Your task to perform on an android device: Go to settings Image 0: 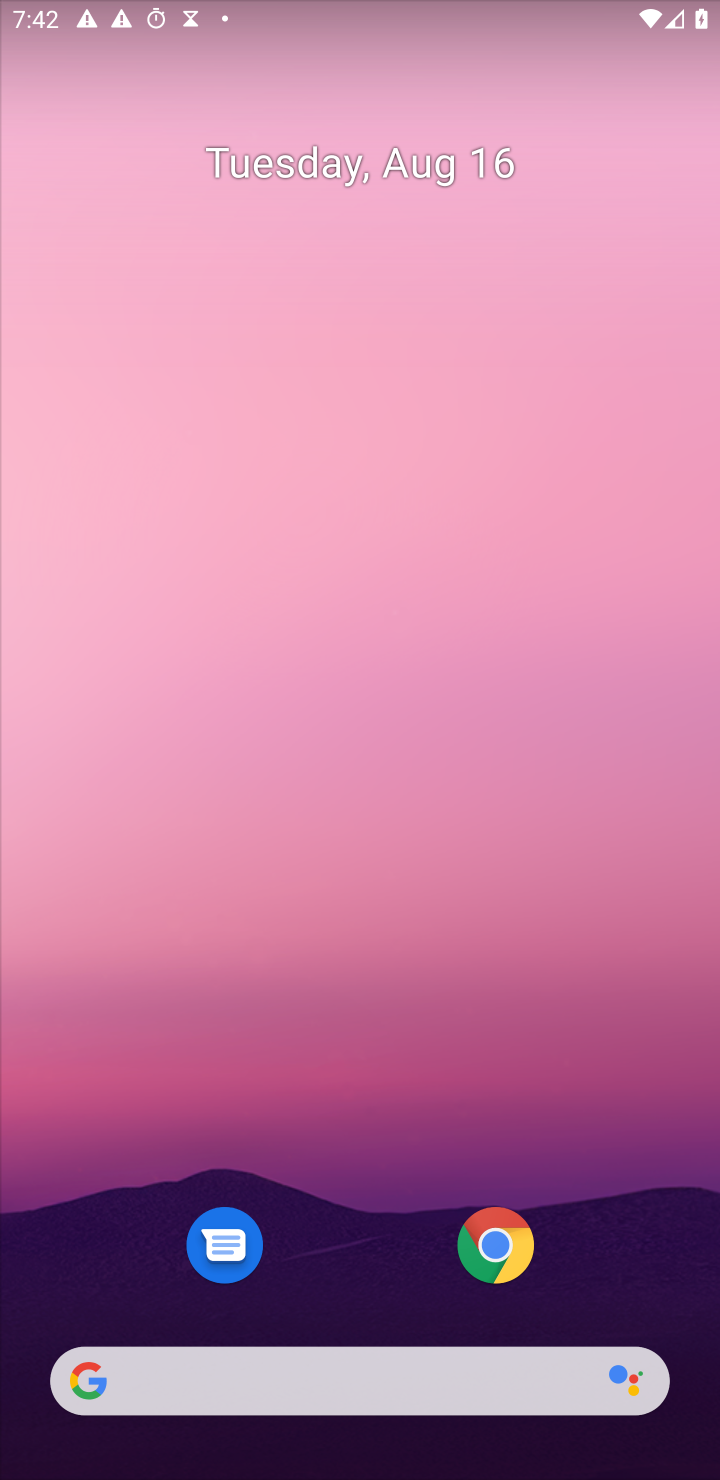
Step 0: press home button
Your task to perform on an android device: Go to settings Image 1: 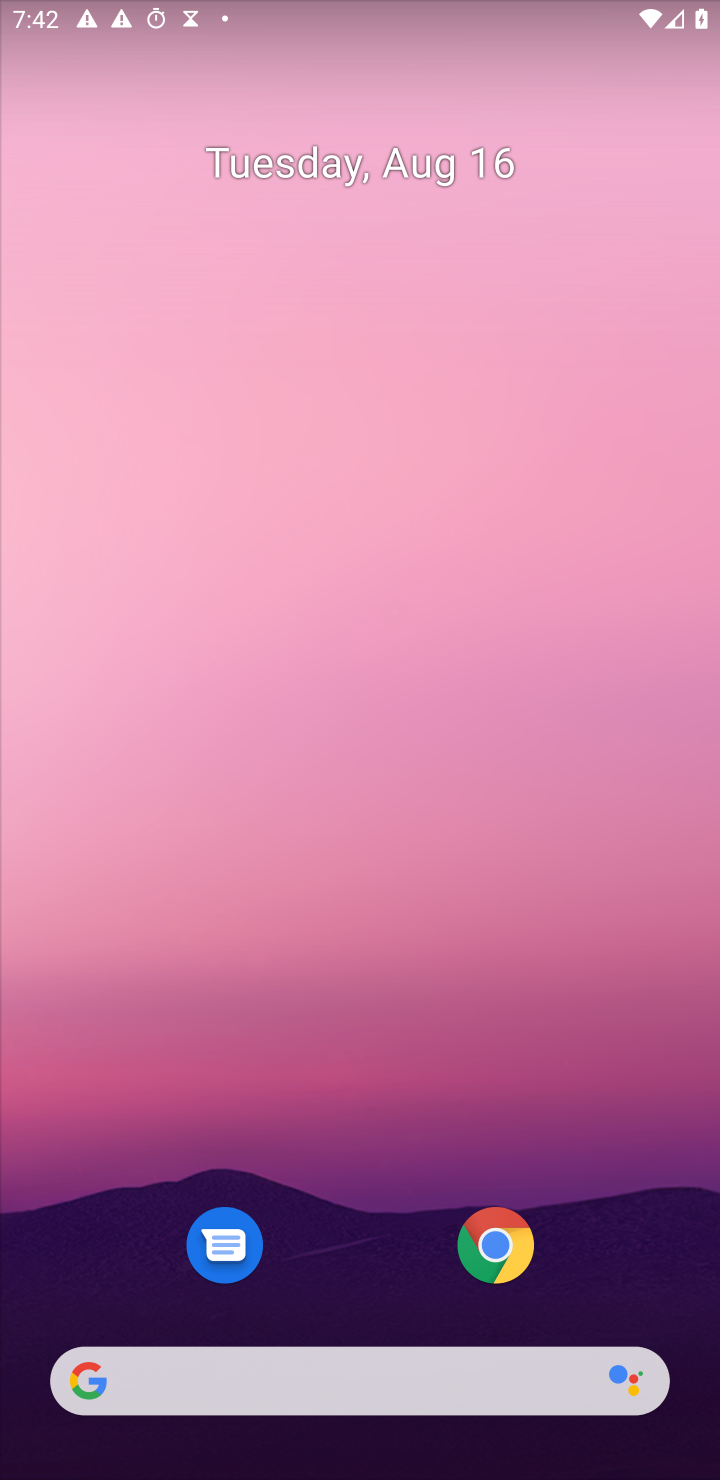
Step 1: drag from (384, 1281) to (425, 208)
Your task to perform on an android device: Go to settings Image 2: 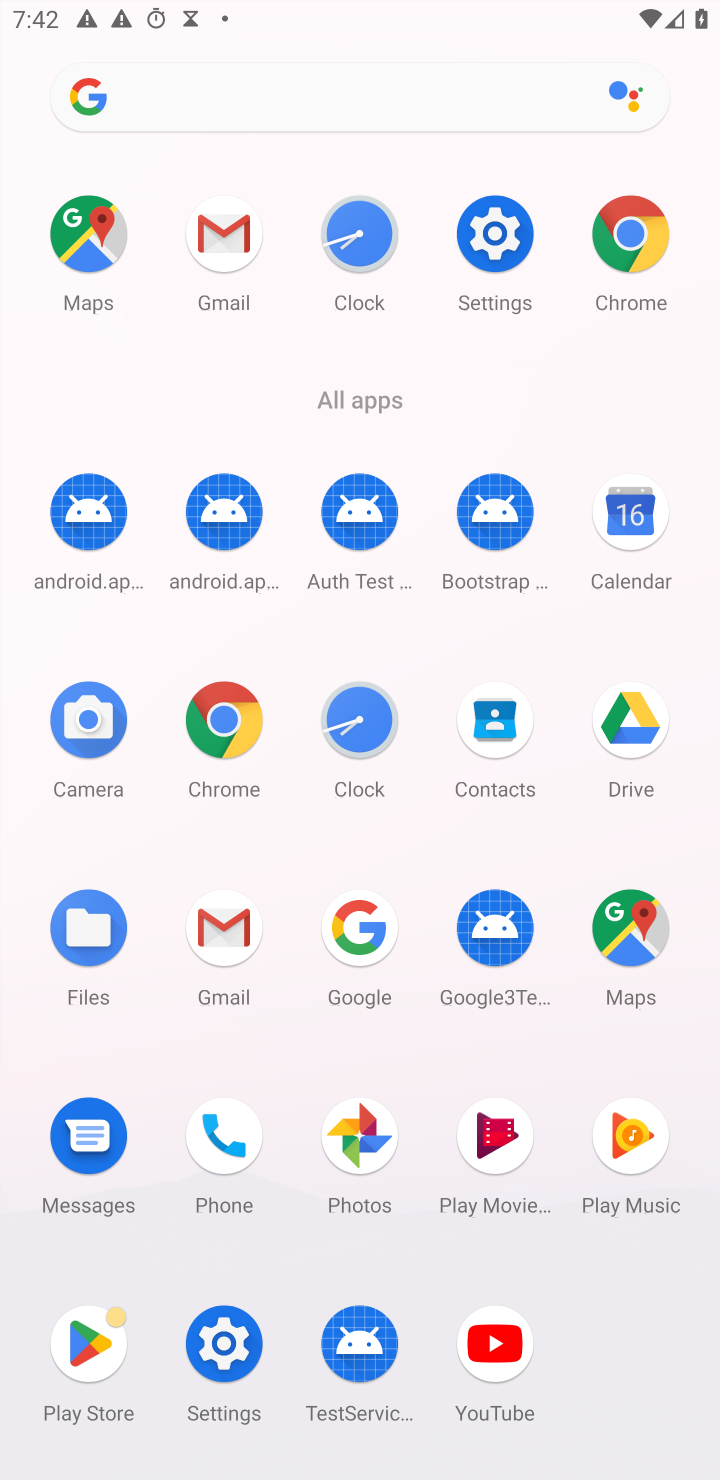
Step 2: click (472, 230)
Your task to perform on an android device: Go to settings Image 3: 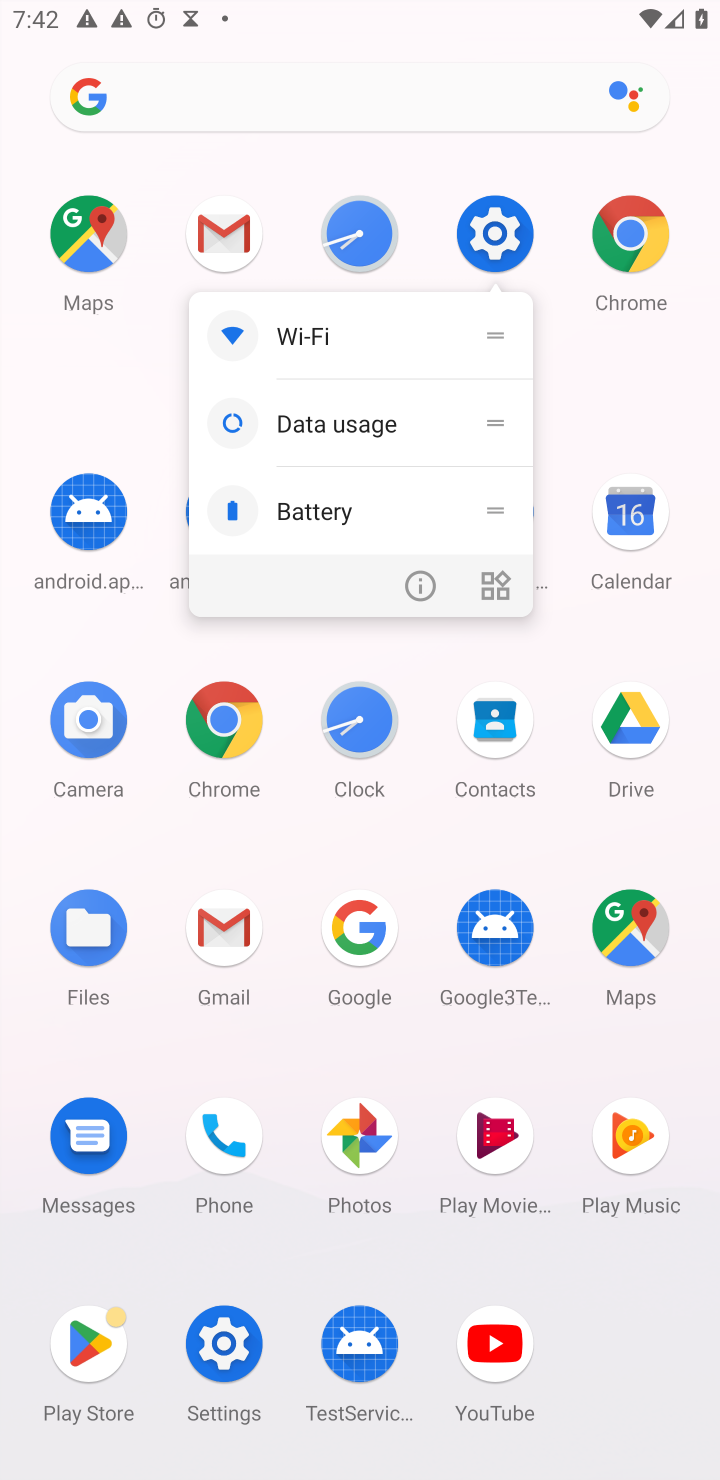
Step 3: click (491, 237)
Your task to perform on an android device: Go to settings Image 4: 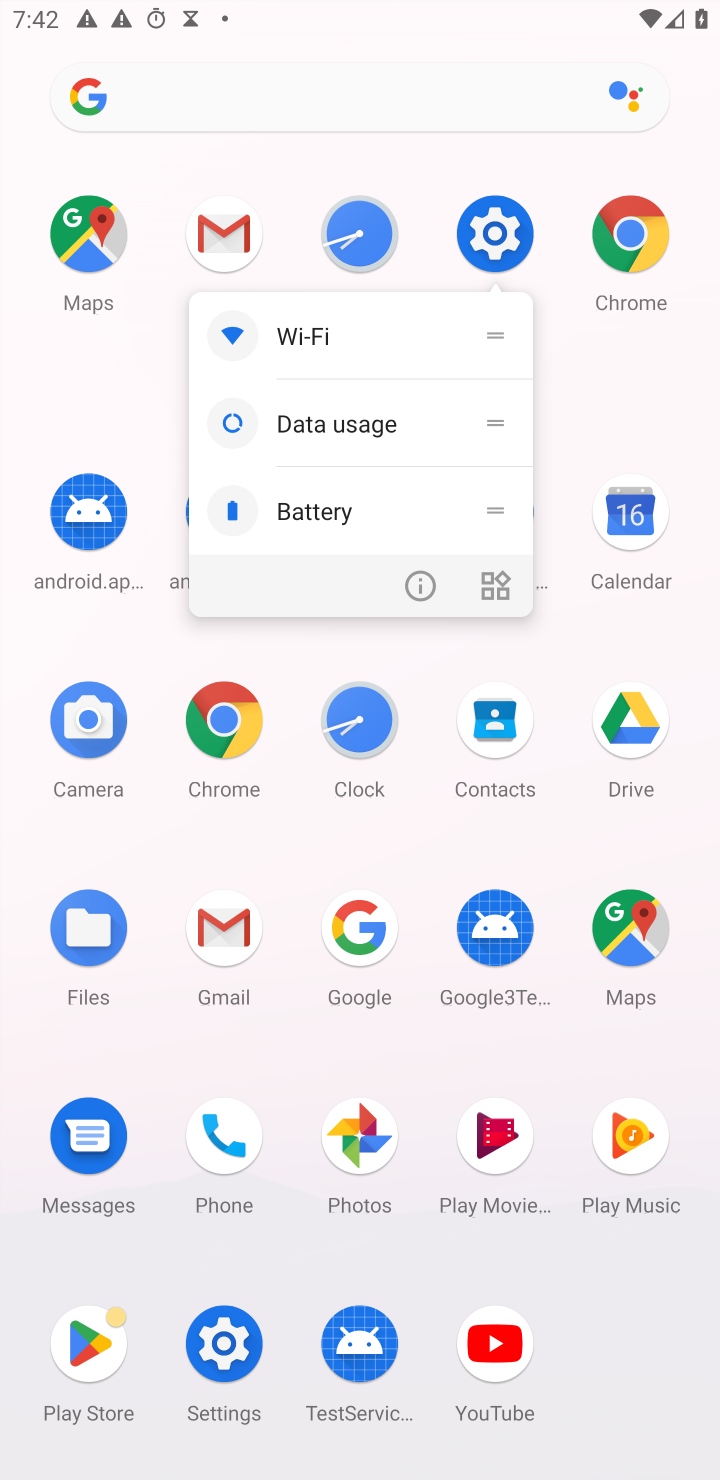
Step 4: click (506, 237)
Your task to perform on an android device: Go to settings Image 5: 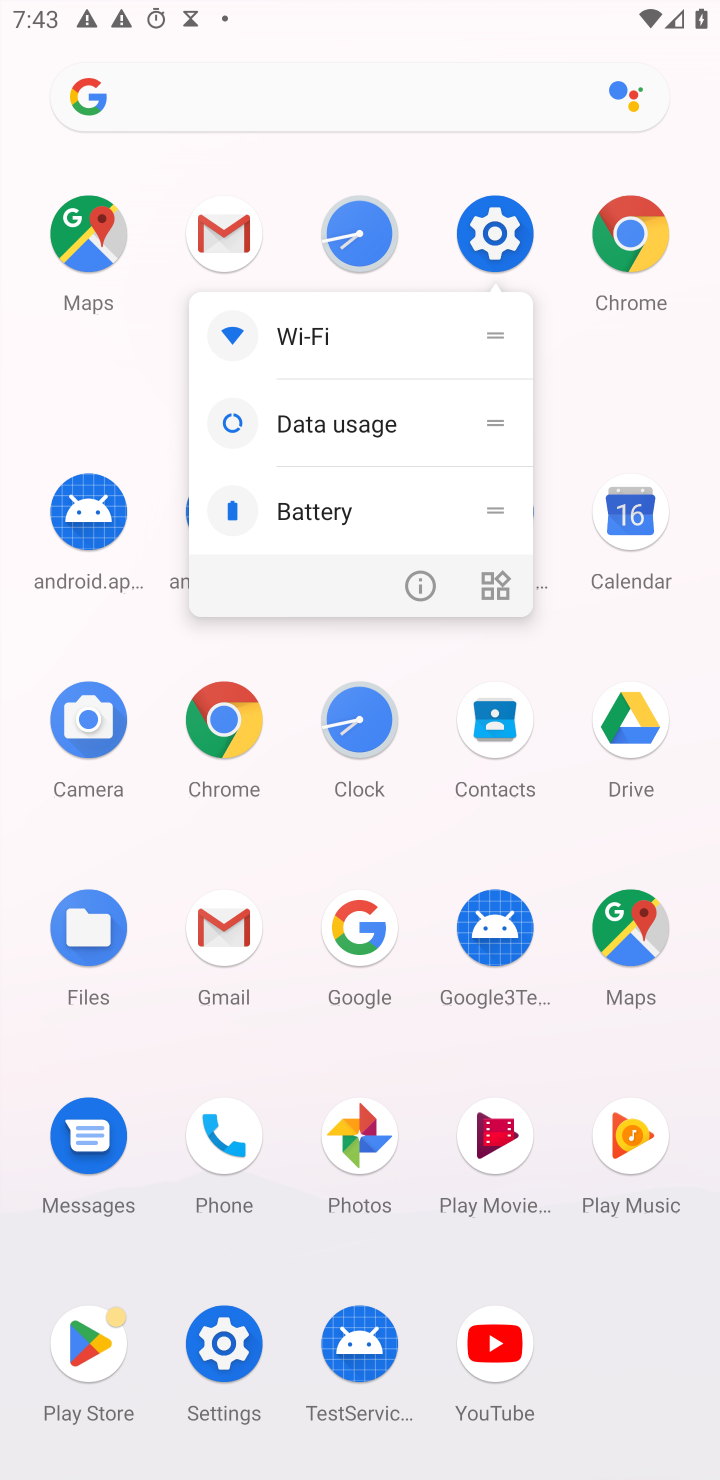
Step 5: click (506, 237)
Your task to perform on an android device: Go to settings Image 6: 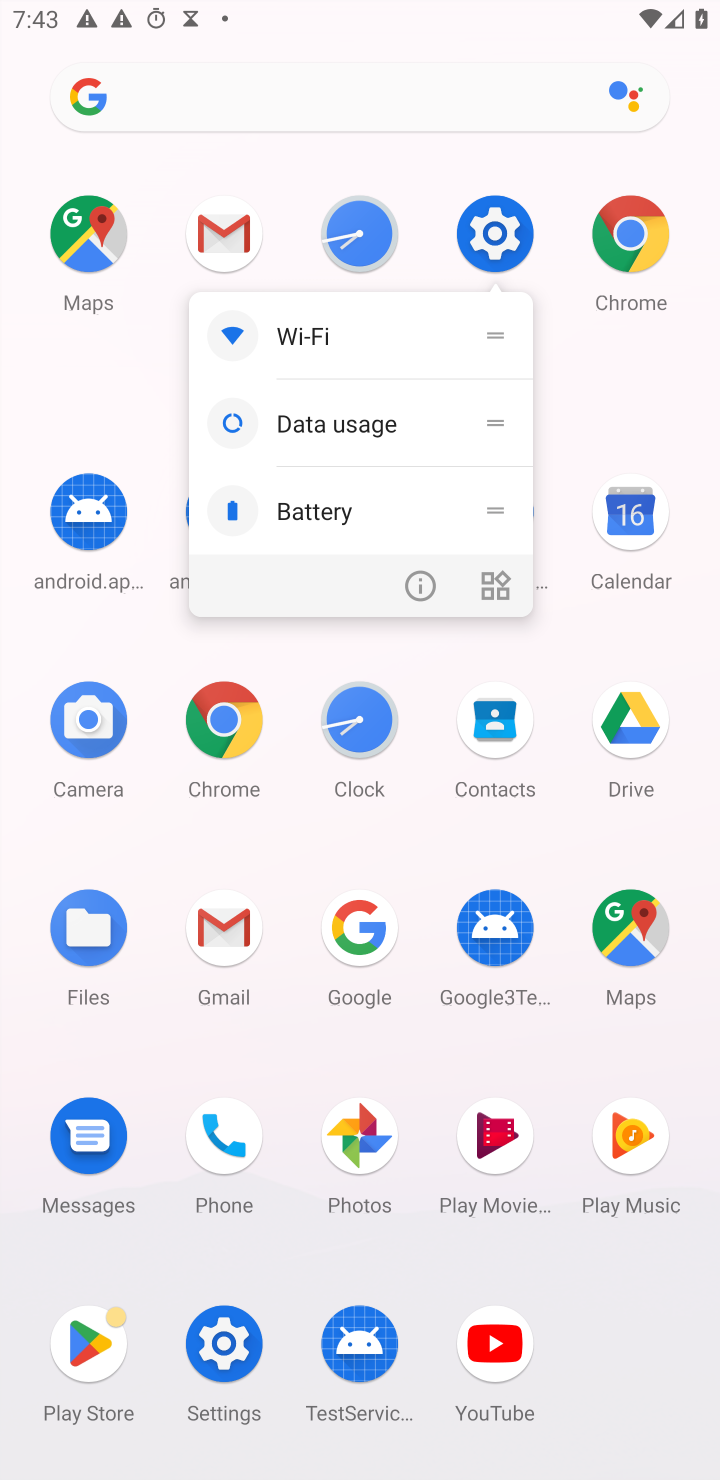
Step 6: click (483, 234)
Your task to perform on an android device: Go to settings Image 7: 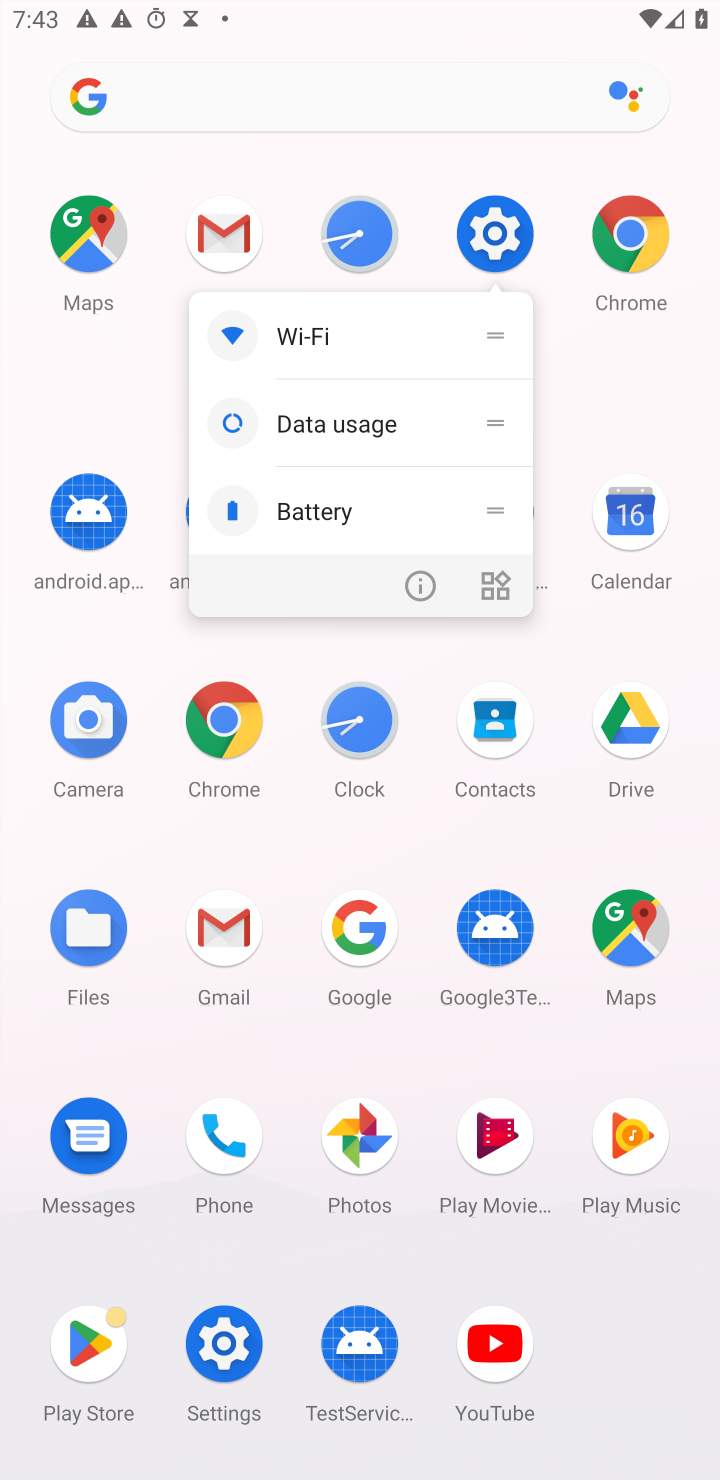
Step 7: click (508, 238)
Your task to perform on an android device: Go to settings Image 8: 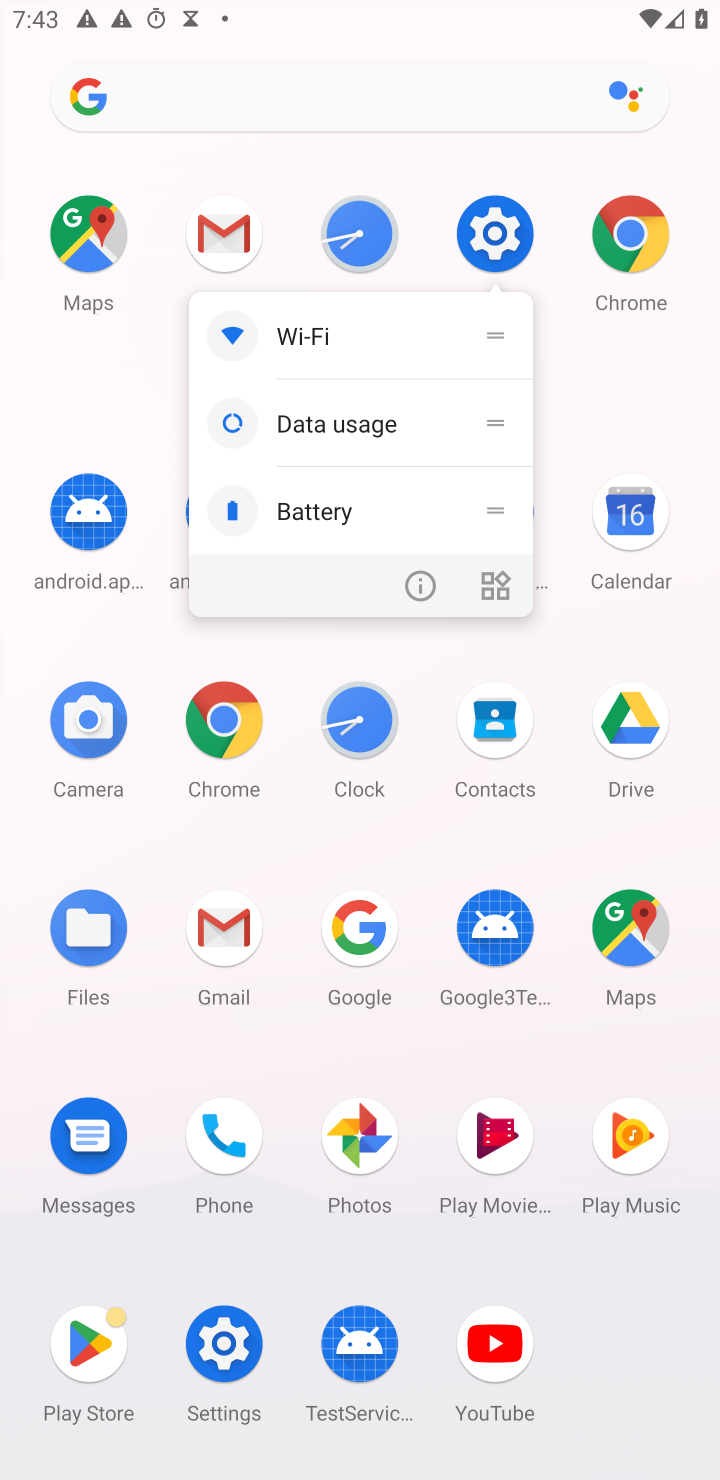
Step 8: click (508, 238)
Your task to perform on an android device: Go to settings Image 9: 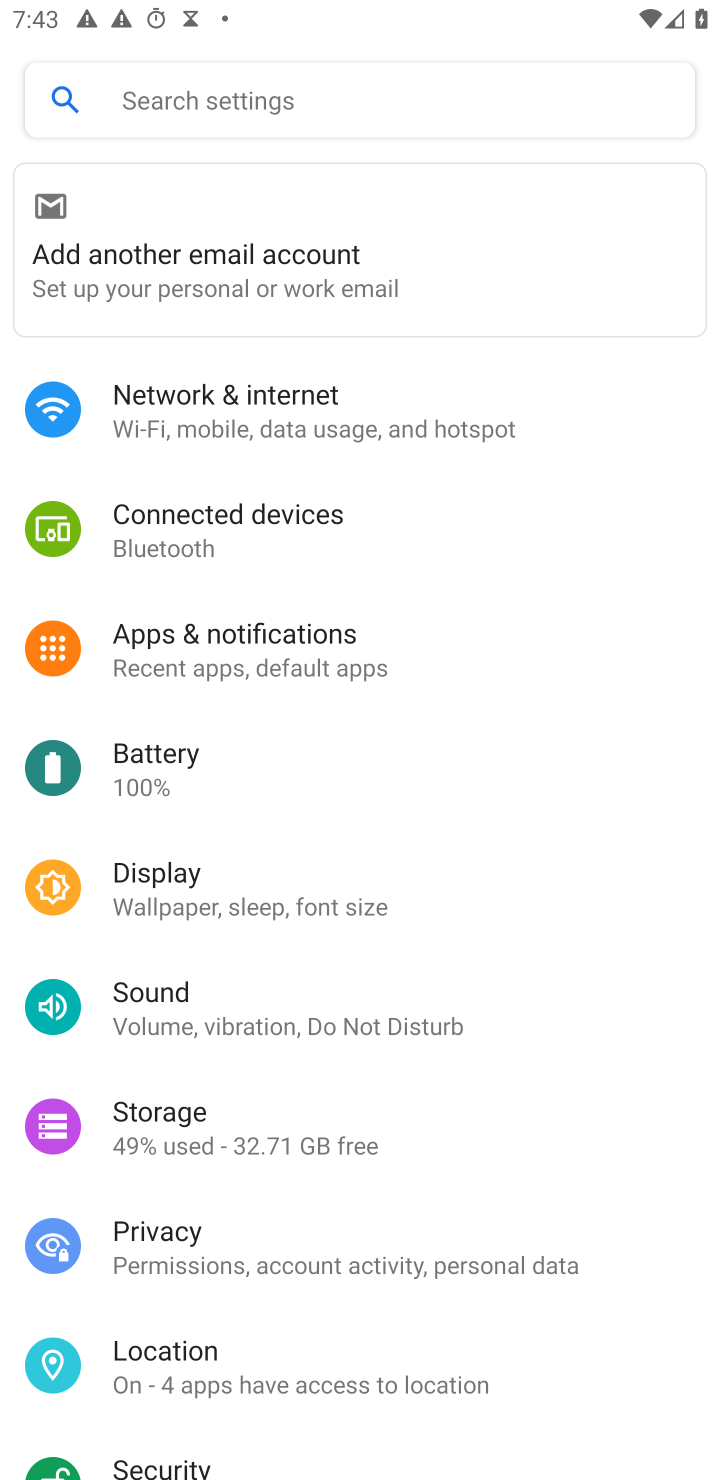
Step 9: task complete